Your task to perform on an android device: clear all cookies in the chrome app Image 0: 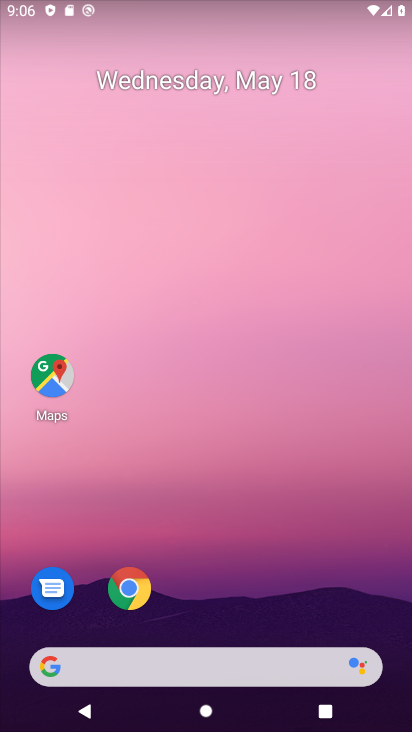
Step 0: drag from (238, 661) to (392, 132)
Your task to perform on an android device: clear all cookies in the chrome app Image 1: 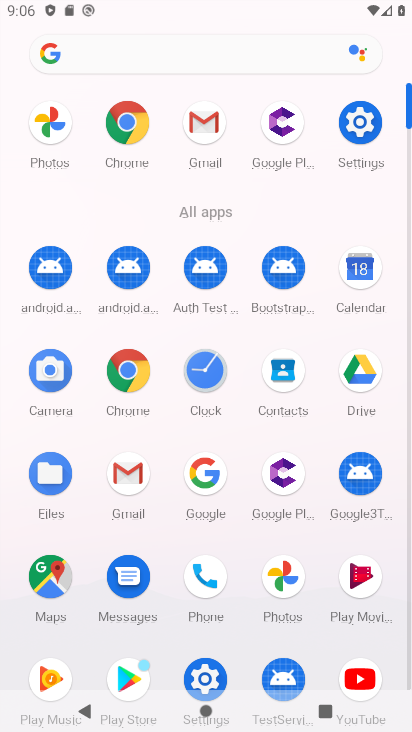
Step 1: click (129, 369)
Your task to perform on an android device: clear all cookies in the chrome app Image 2: 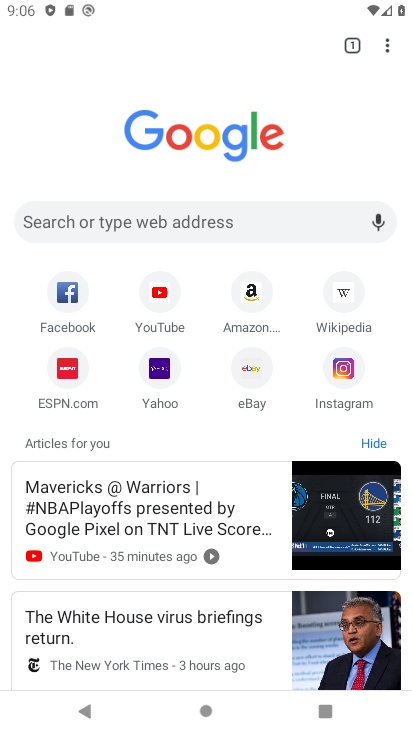
Step 2: click (377, 54)
Your task to perform on an android device: clear all cookies in the chrome app Image 3: 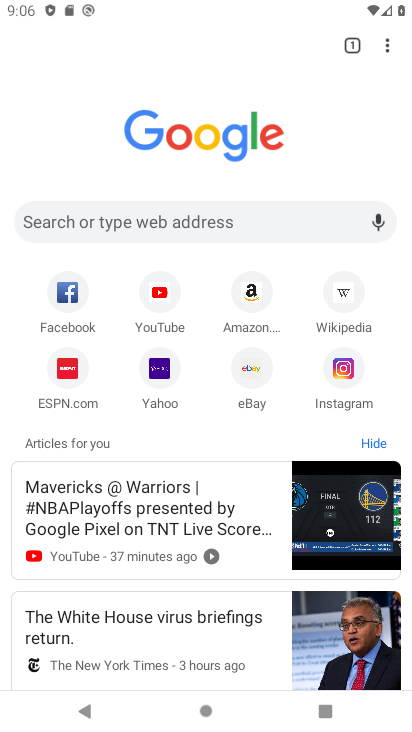
Step 3: click (388, 57)
Your task to perform on an android device: clear all cookies in the chrome app Image 4: 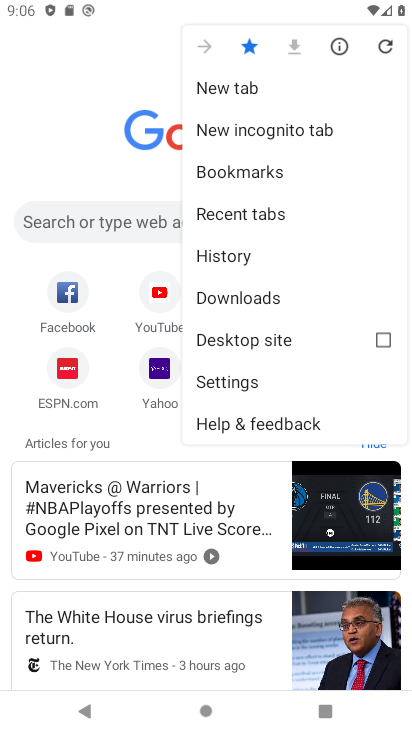
Step 4: click (230, 381)
Your task to perform on an android device: clear all cookies in the chrome app Image 5: 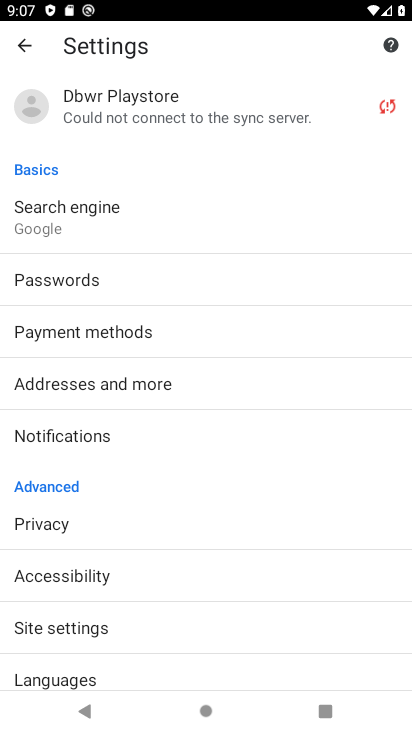
Step 5: click (65, 624)
Your task to perform on an android device: clear all cookies in the chrome app Image 6: 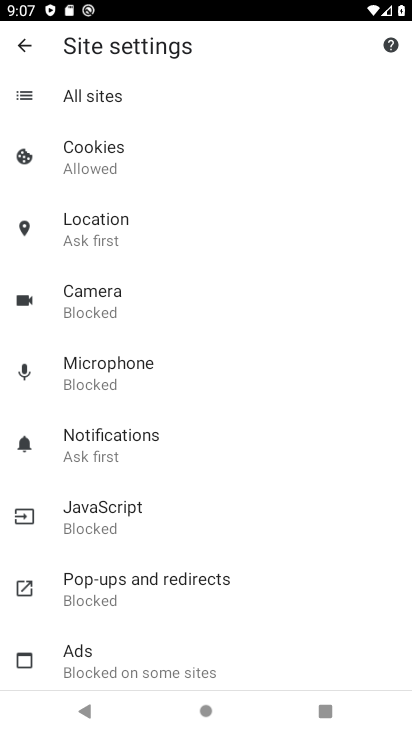
Step 6: click (35, 48)
Your task to perform on an android device: clear all cookies in the chrome app Image 7: 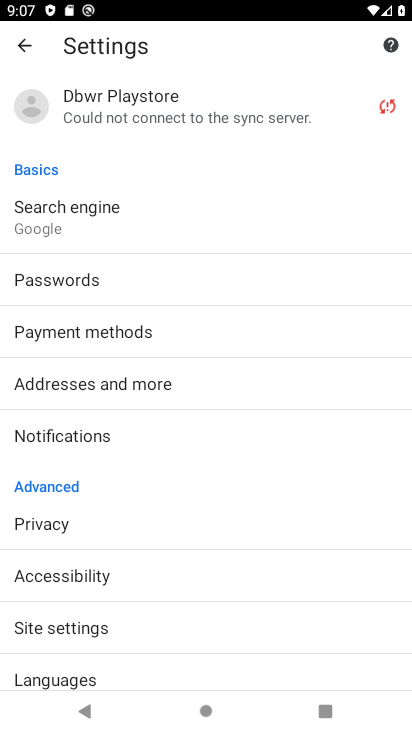
Step 7: click (88, 526)
Your task to perform on an android device: clear all cookies in the chrome app Image 8: 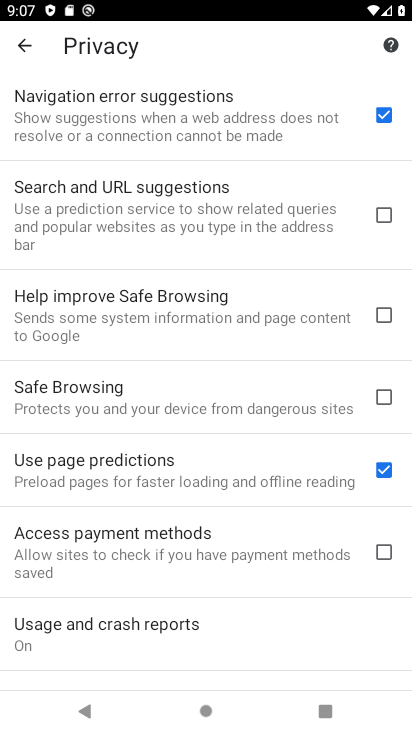
Step 8: drag from (140, 588) to (296, 279)
Your task to perform on an android device: clear all cookies in the chrome app Image 9: 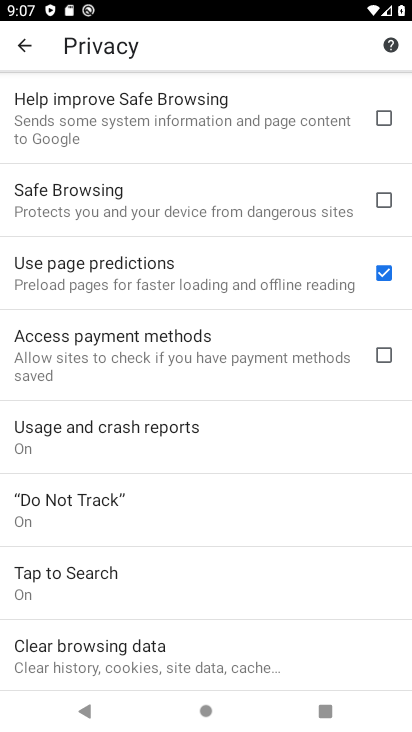
Step 9: click (119, 647)
Your task to perform on an android device: clear all cookies in the chrome app Image 10: 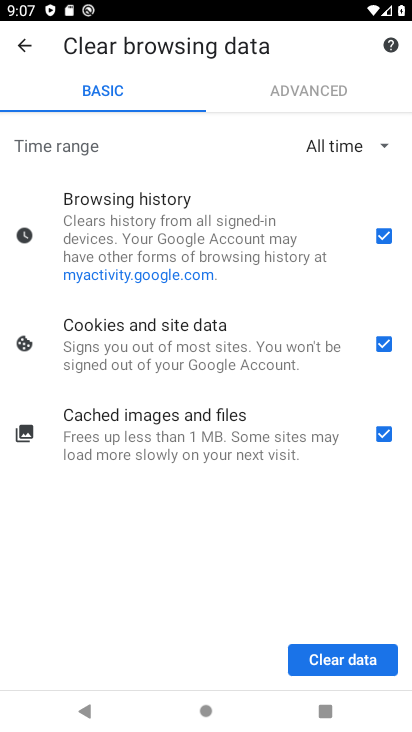
Step 10: click (376, 233)
Your task to perform on an android device: clear all cookies in the chrome app Image 11: 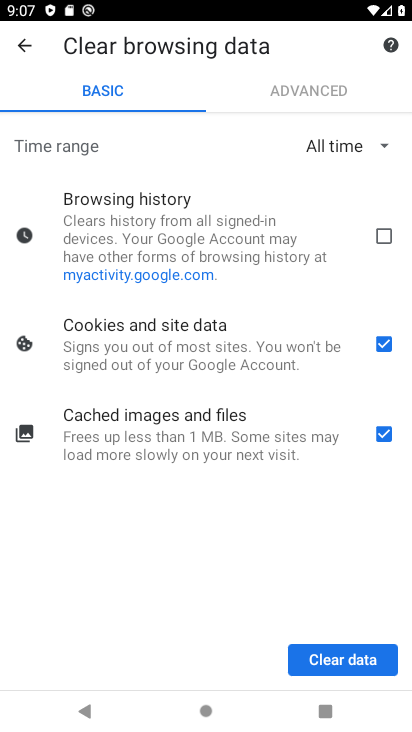
Step 11: click (380, 437)
Your task to perform on an android device: clear all cookies in the chrome app Image 12: 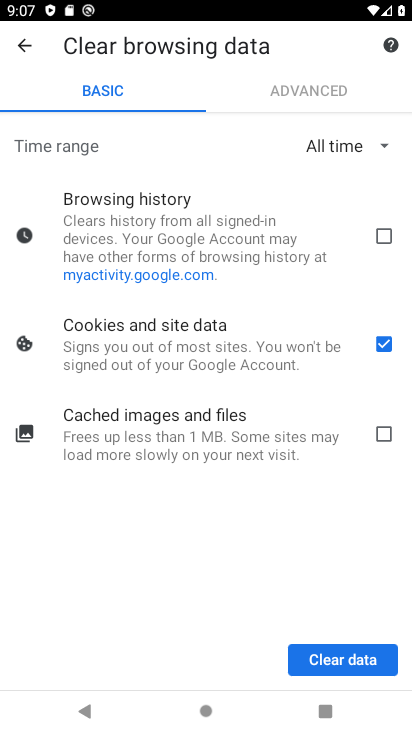
Step 12: click (314, 657)
Your task to perform on an android device: clear all cookies in the chrome app Image 13: 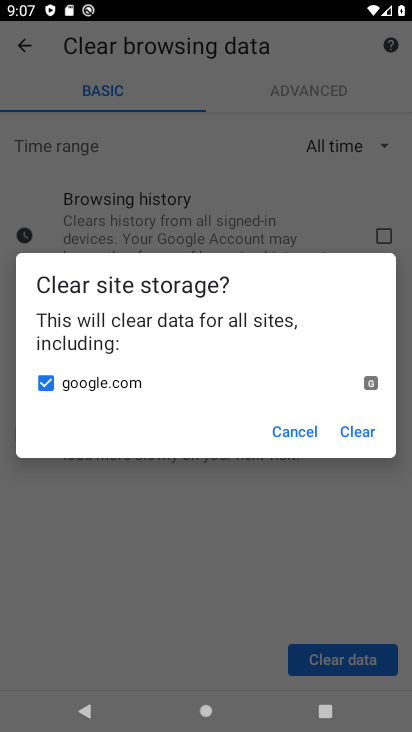
Step 13: click (358, 426)
Your task to perform on an android device: clear all cookies in the chrome app Image 14: 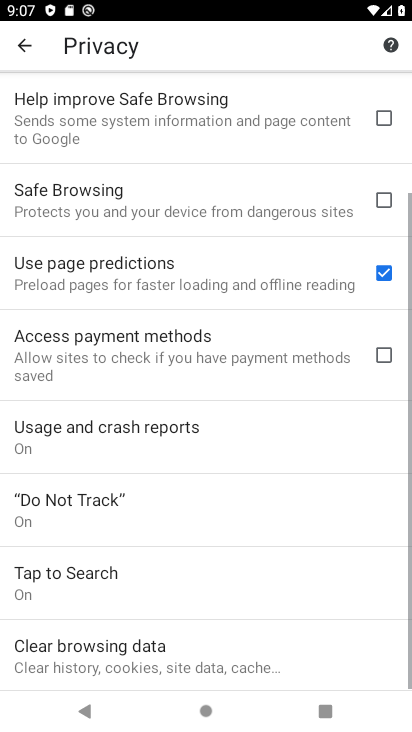
Step 14: task complete